Your task to perform on an android device: When is my next meeting? Image 0: 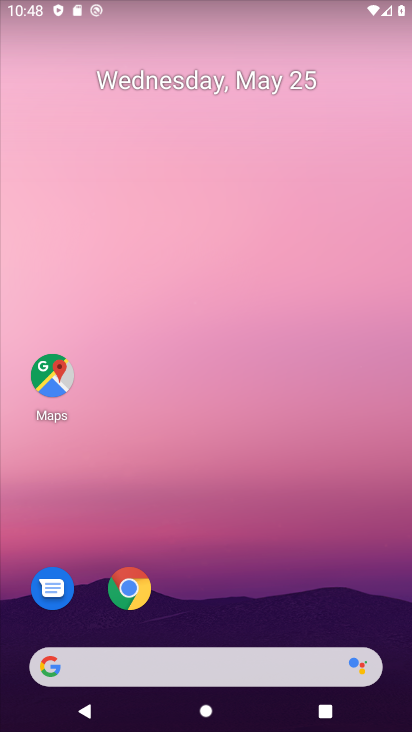
Step 0: drag from (237, 616) to (223, 208)
Your task to perform on an android device: When is my next meeting? Image 1: 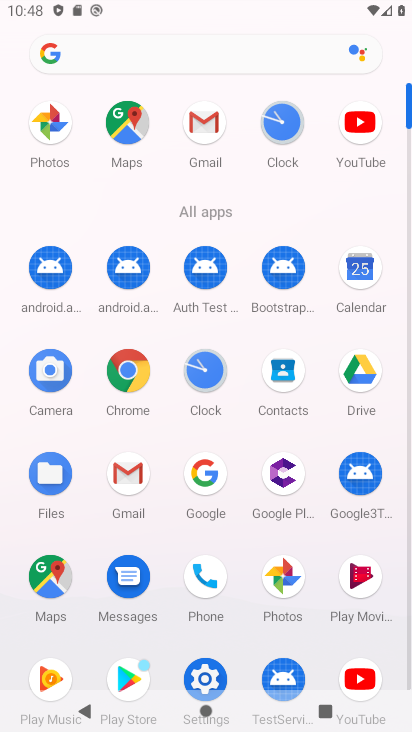
Step 1: click (360, 267)
Your task to perform on an android device: When is my next meeting? Image 2: 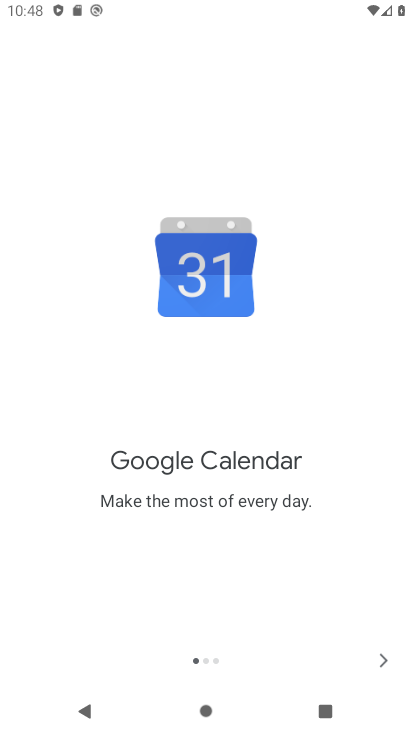
Step 2: click (383, 665)
Your task to perform on an android device: When is my next meeting? Image 3: 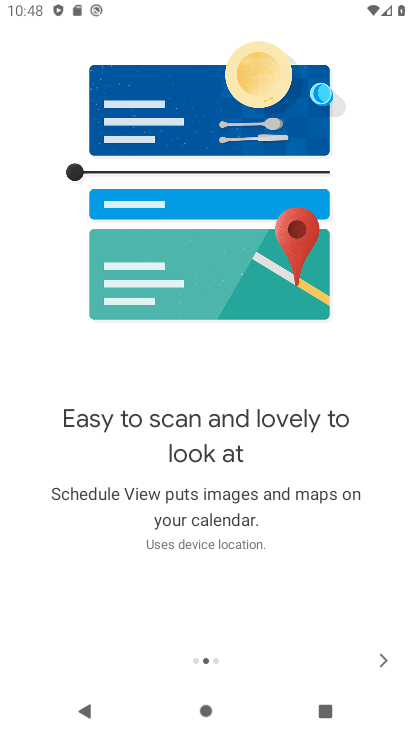
Step 3: click (383, 665)
Your task to perform on an android device: When is my next meeting? Image 4: 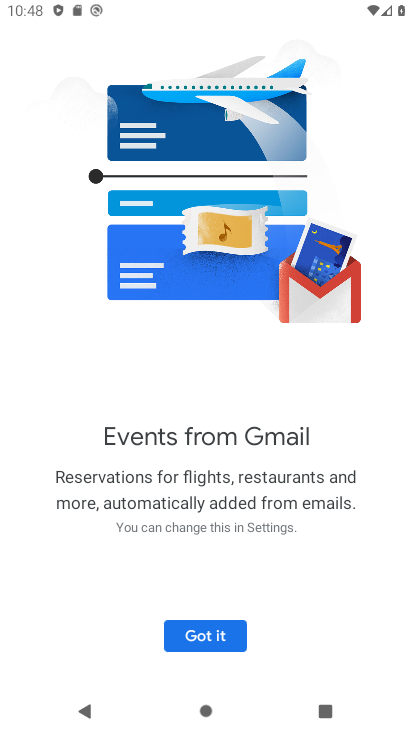
Step 4: click (203, 633)
Your task to perform on an android device: When is my next meeting? Image 5: 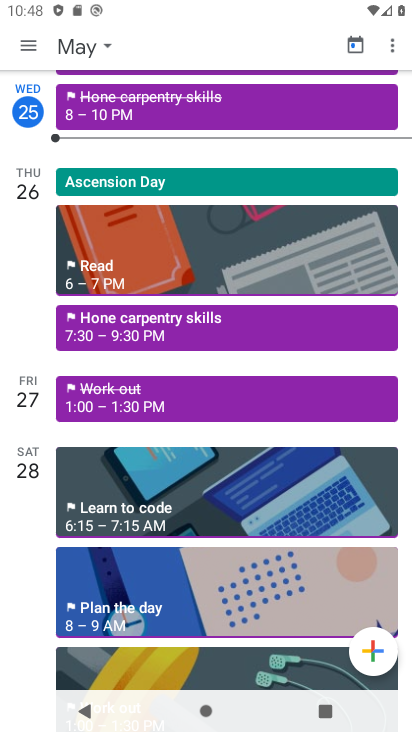
Step 5: click (106, 47)
Your task to perform on an android device: When is my next meeting? Image 6: 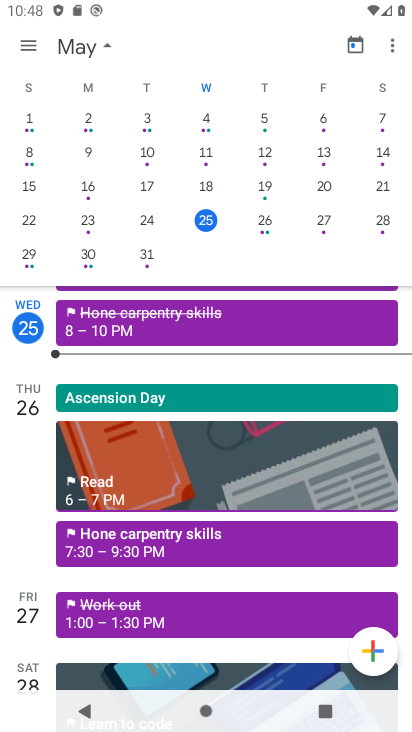
Step 6: click (322, 226)
Your task to perform on an android device: When is my next meeting? Image 7: 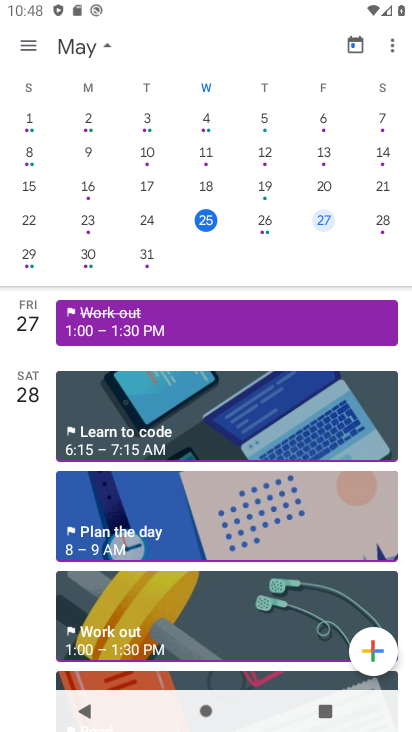
Step 7: click (255, 328)
Your task to perform on an android device: When is my next meeting? Image 8: 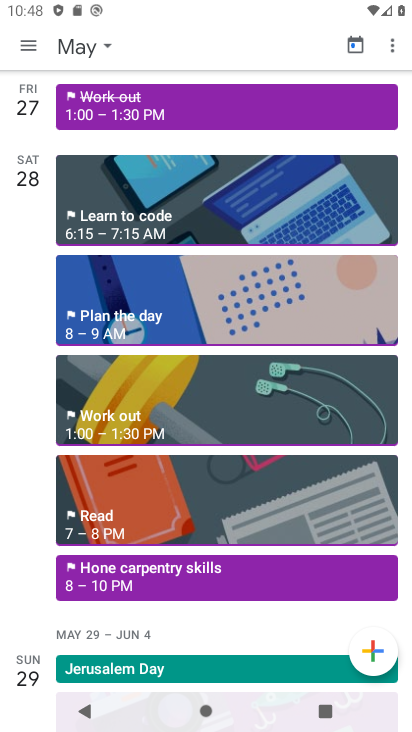
Step 8: click (221, 99)
Your task to perform on an android device: When is my next meeting? Image 9: 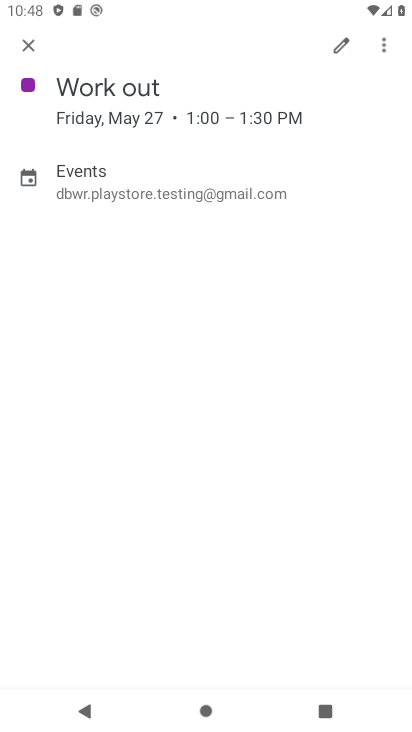
Step 9: task complete